Your task to perform on an android device: open sync settings in chrome Image 0: 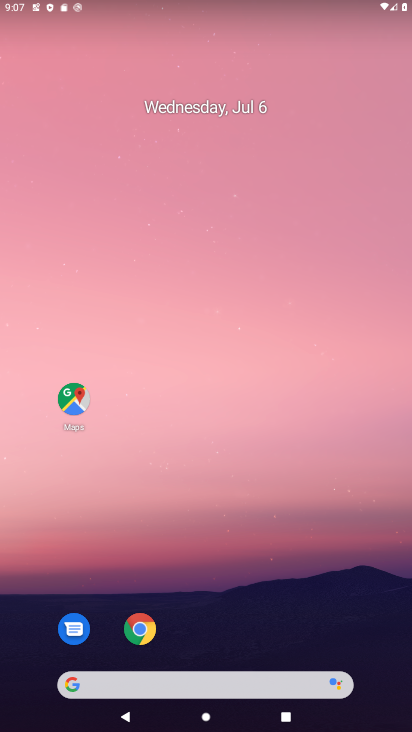
Step 0: drag from (254, 624) to (255, 149)
Your task to perform on an android device: open sync settings in chrome Image 1: 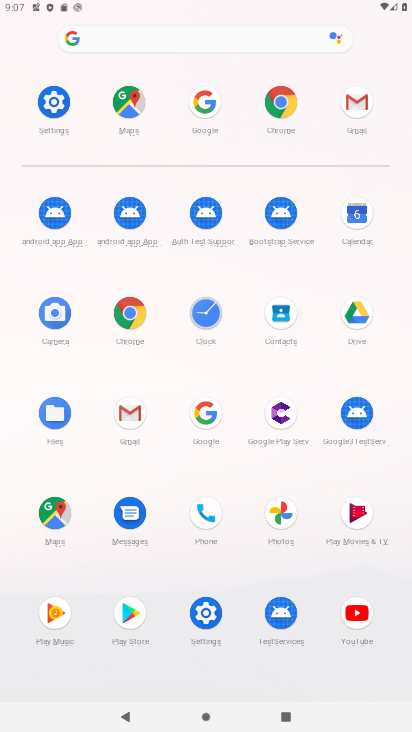
Step 1: click (274, 100)
Your task to perform on an android device: open sync settings in chrome Image 2: 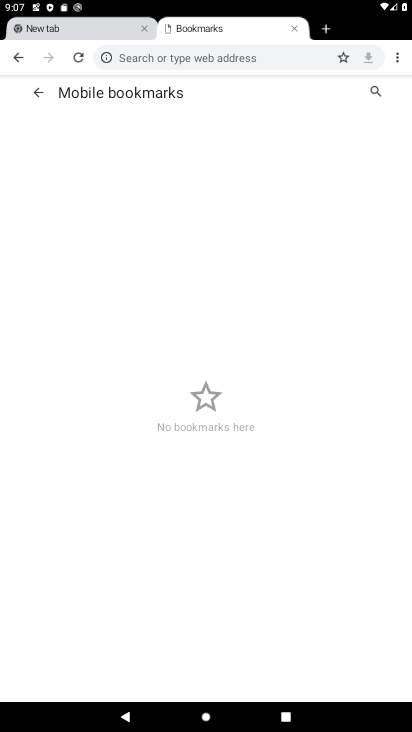
Step 2: click (393, 53)
Your task to perform on an android device: open sync settings in chrome Image 3: 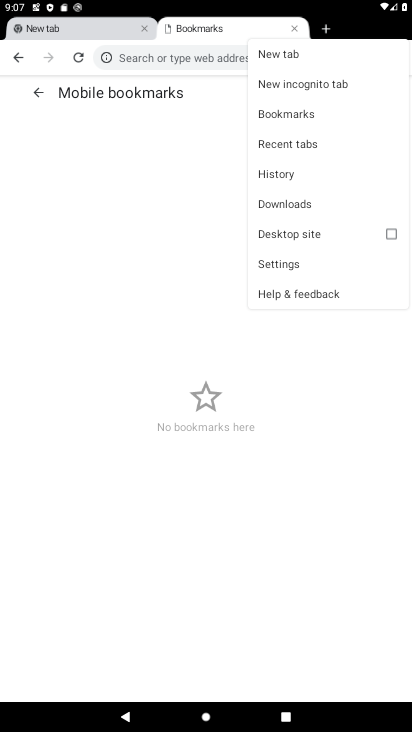
Step 3: click (284, 261)
Your task to perform on an android device: open sync settings in chrome Image 4: 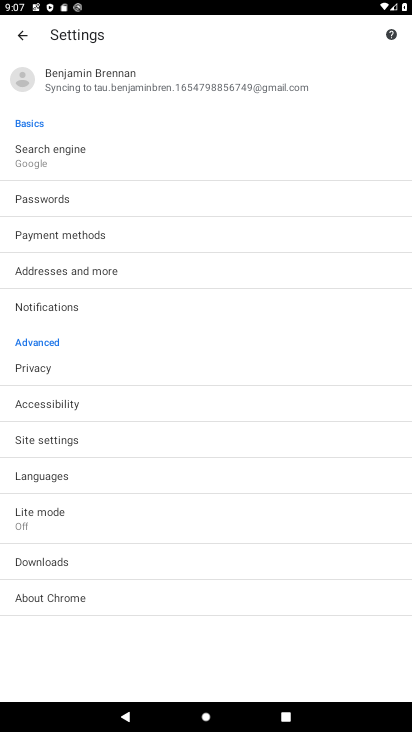
Step 4: click (47, 445)
Your task to perform on an android device: open sync settings in chrome Image 5: 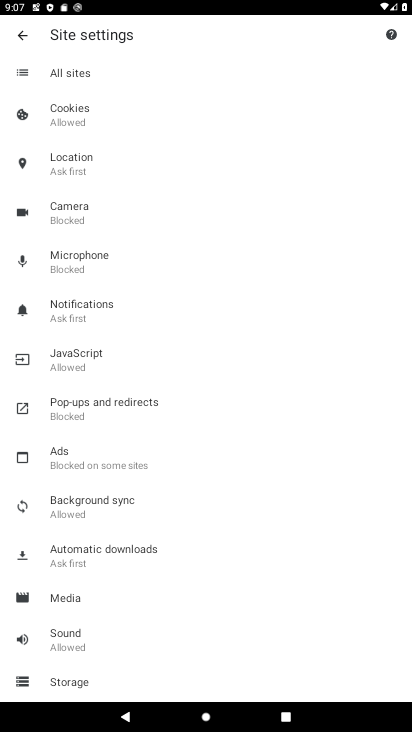
Step 5: drag from (160, 563) to (188, 263)
Your task to perform on an android device: open sync settings in chrome Image 6: 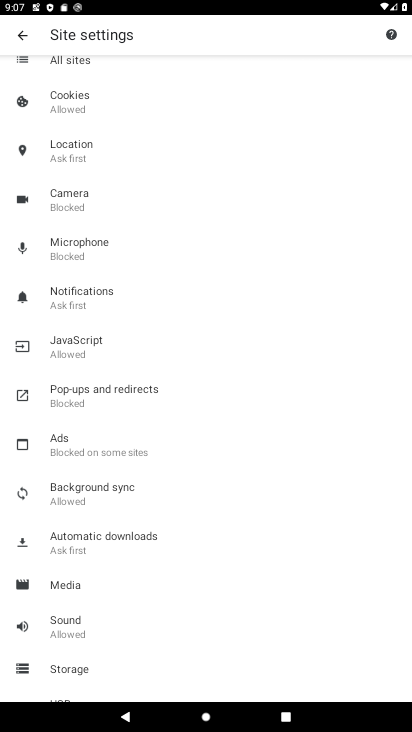
Step 6: click (121, 490)
Your task to perform on an android device: open sync settings in chrome Image 7: 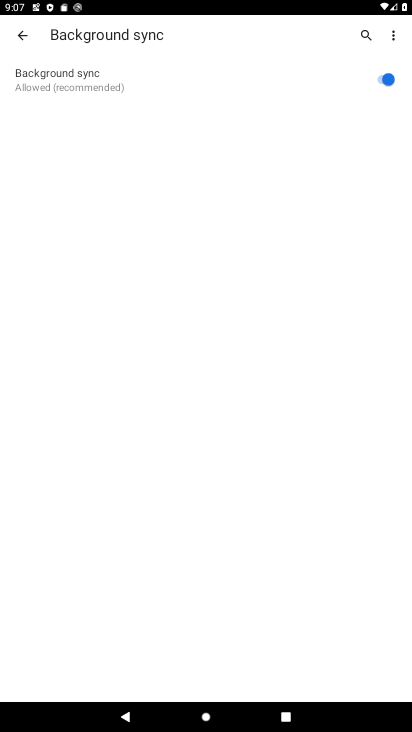
Step 7: task complete